Your task to perform on an android device: Show me productivity apps on the Play Store Image 0: 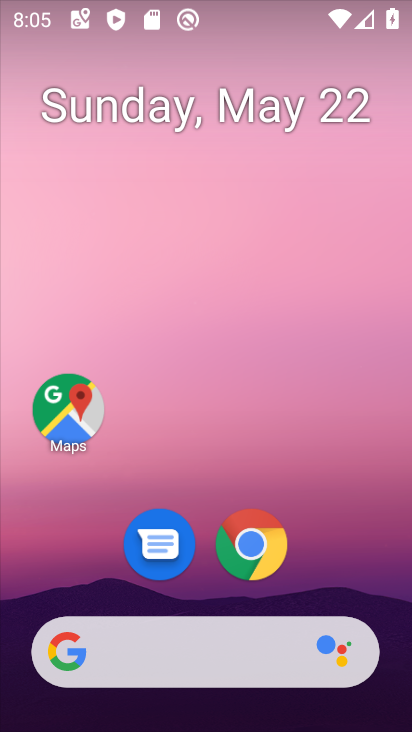
Step 0: drag from (337, 569) to (385, 118)
Your task to perform on an android device: Show me productivity apps on the Play Store Image 1: 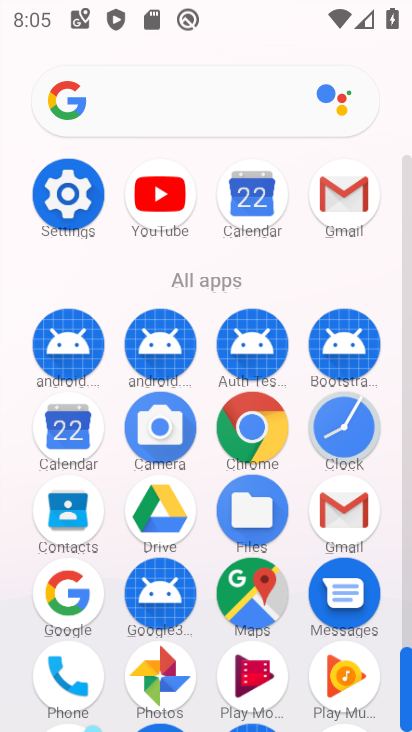
Step 1: drag from (204, 623) to (246, 282)
Your task to perform on an android device: Show me productivity apps on the Play Store Image 2: 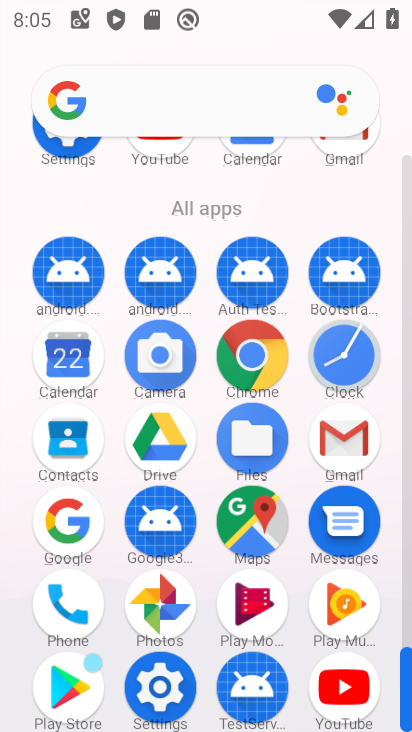
Step 2: click (88, 694)
Your task to perform on an android device: Show me productivity apps on the Play Store Image 3: 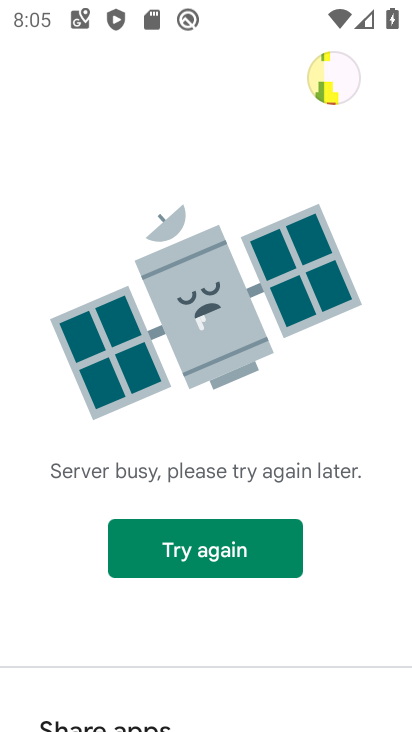
Step 3: task complete